Your task to perform on an android device: Turn off the flashlight Image 0: 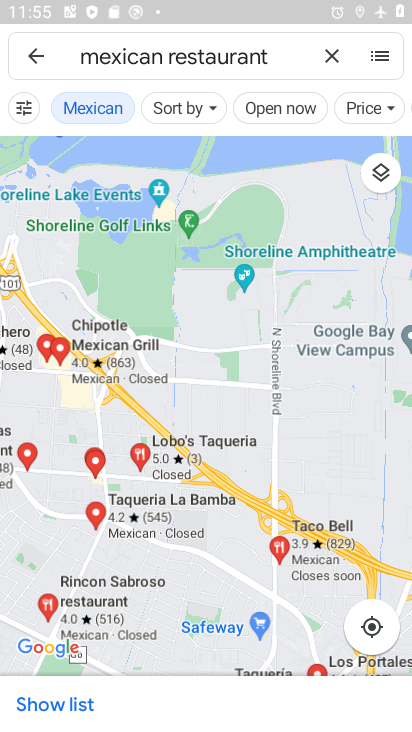
Step 0: press home button
Your task to perform on an android device: Turn off the flashlight Image 1: 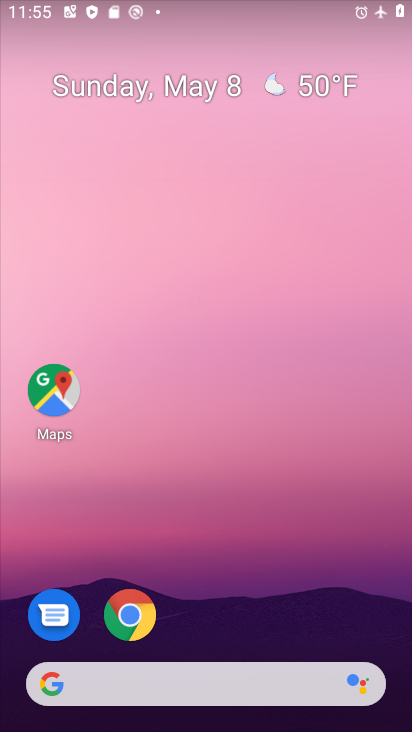
Step 1: drag from (287, 710) to (287, 304)
Your task to perform on an android device: Turn off the flashlight Image 2: 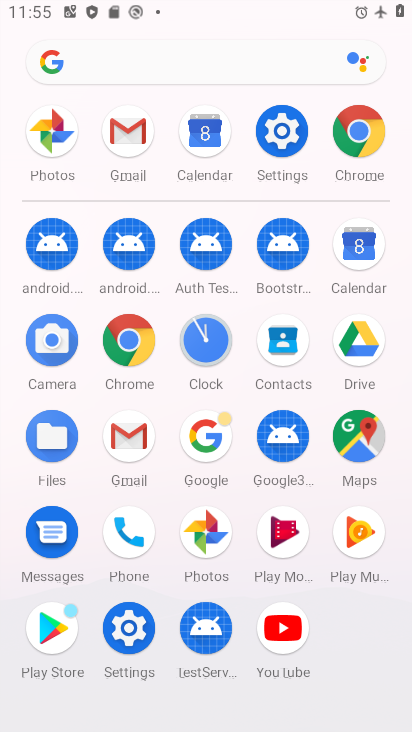
Step 2: click (264, 153)
Your task to perform on an android device: Turn off the flashlight Image 3: 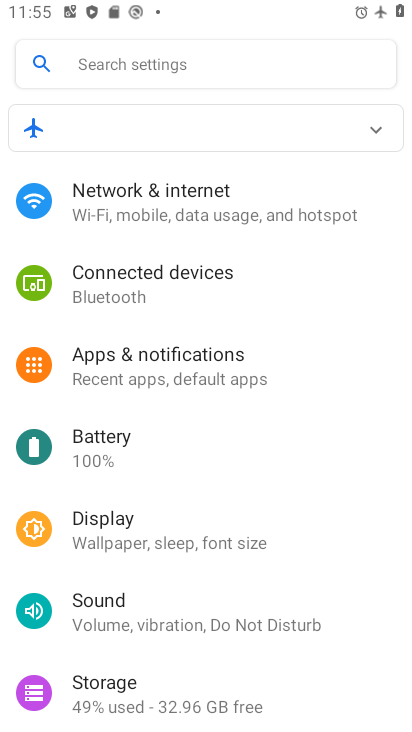
Step 3: click (149, 60)
Your task to perform on an android device: Turn off the flashlight Image 4: 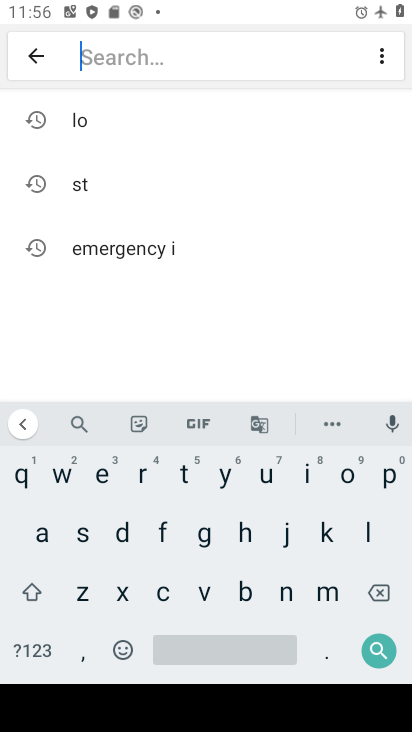
Step 4: click (161, 536)
Your task to perform on an android device: Turn off the flashlight Image 5: 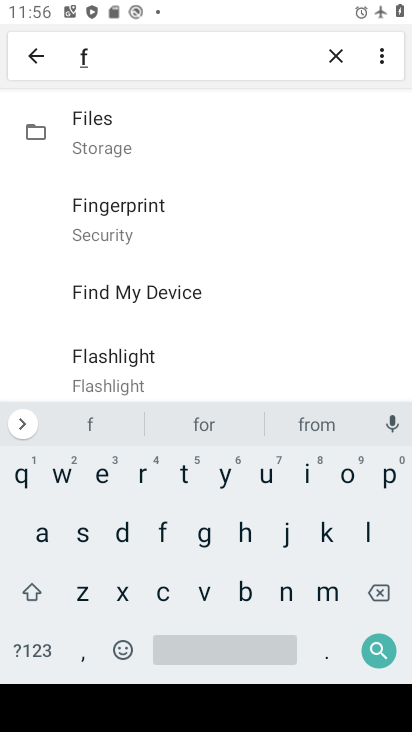
Step 5: click (367, 532)
Your task to perform on an android device: Turn off the flashlight Image 6: 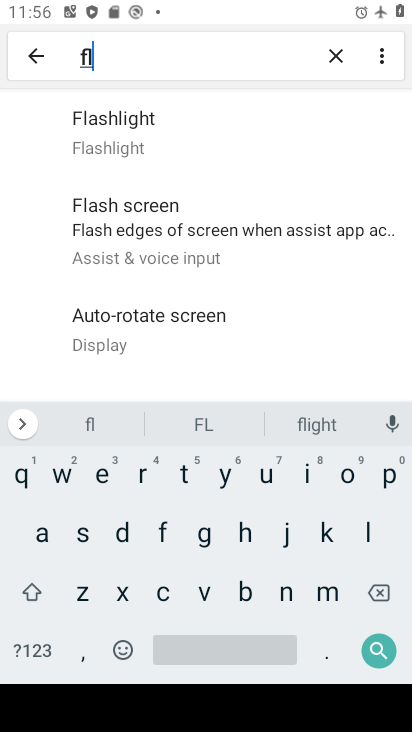
Step 6: task complete